Your task to perform on an android device: Show me recent news Image 0: 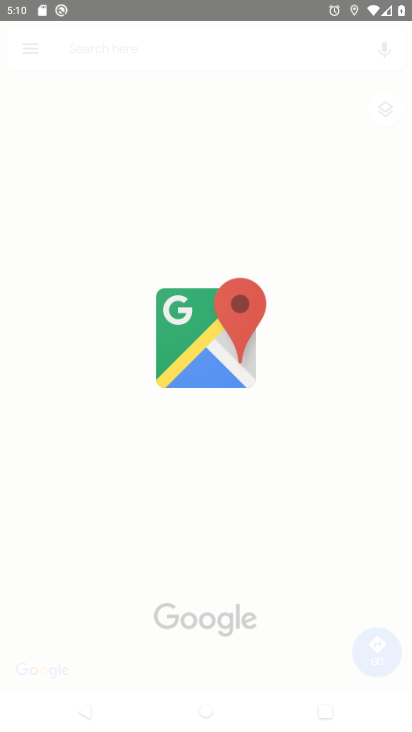
Step 0: click (390, 588)
Your task to perform on an android device: Show me recent news Image 1: 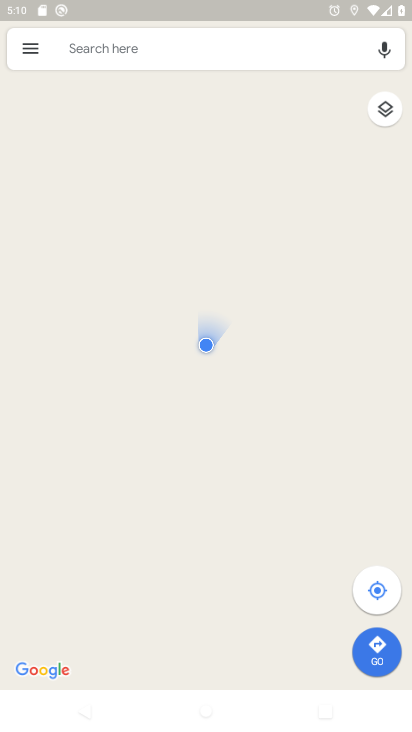
Step 1: press back button
Your task to perform on an android device: Show me recent news Image 2: 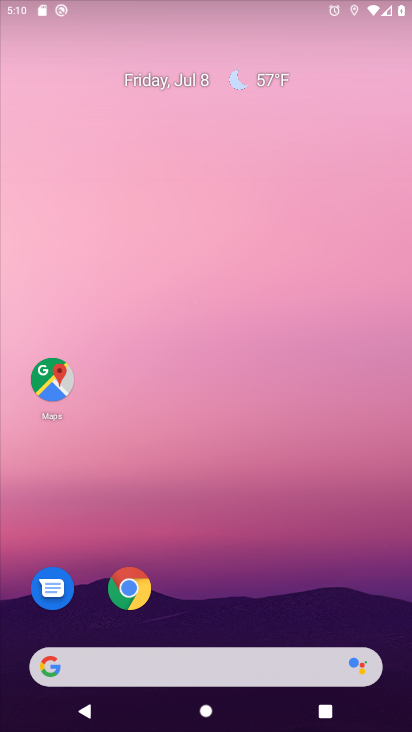
Step 2: press home button
Your task to perform on an android device: Show me recent news Image 3: 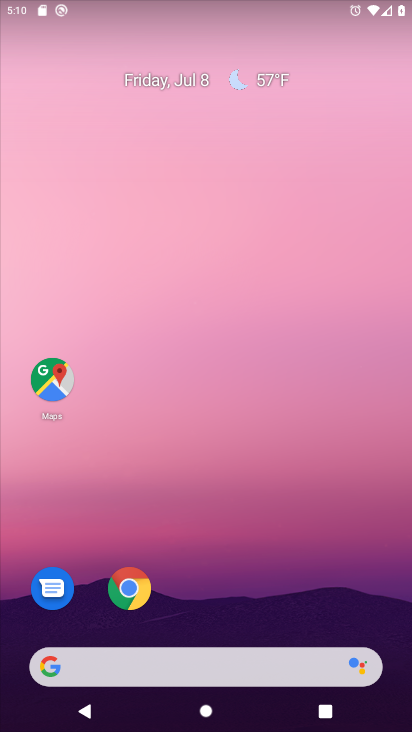
Step 3: click (241, 59)
Your task to perform on an android device: Show me recent news Image 4: 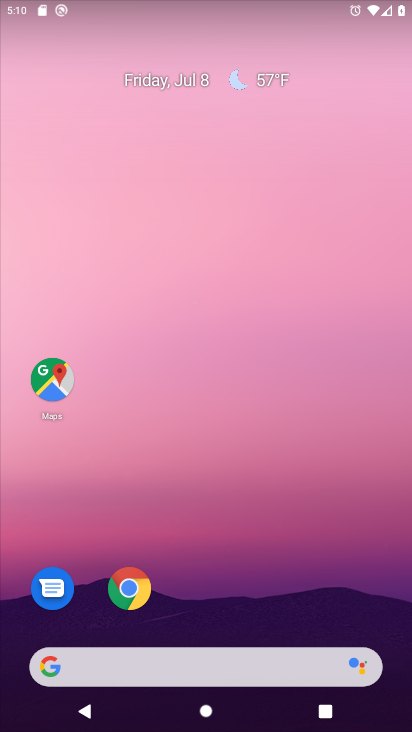
Step 4: drag from (212, 580) to (156, 217)
Your task to perform on an android device: Show me recent news Image 5: 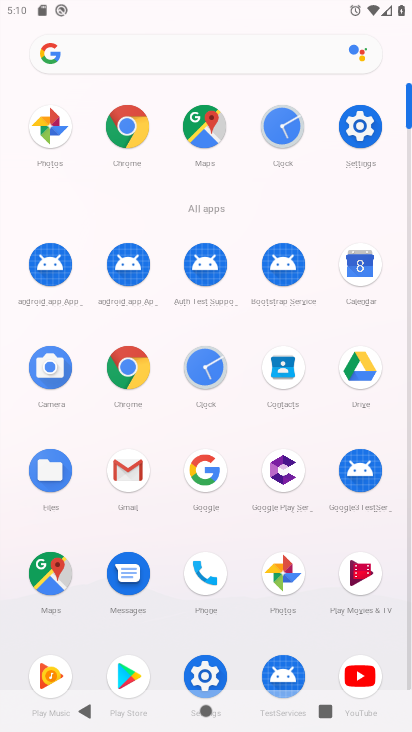
Step 5: click (109, 110)
Your task to perform on an android device: Show me recent news Image 6: 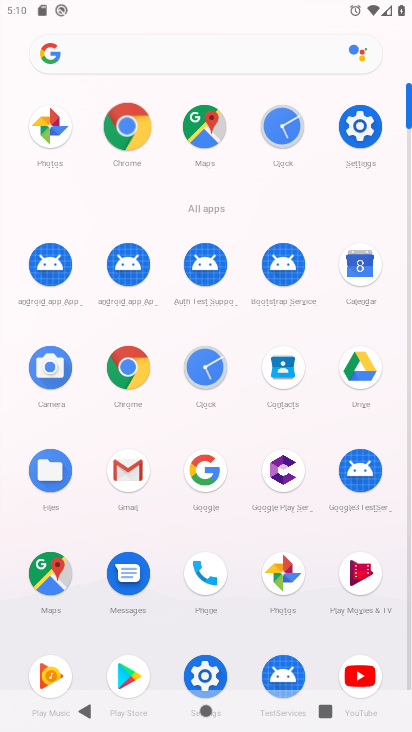
Step 6: click (112, 115)
Your task to perform on an android device: Show me recent news Image 7: 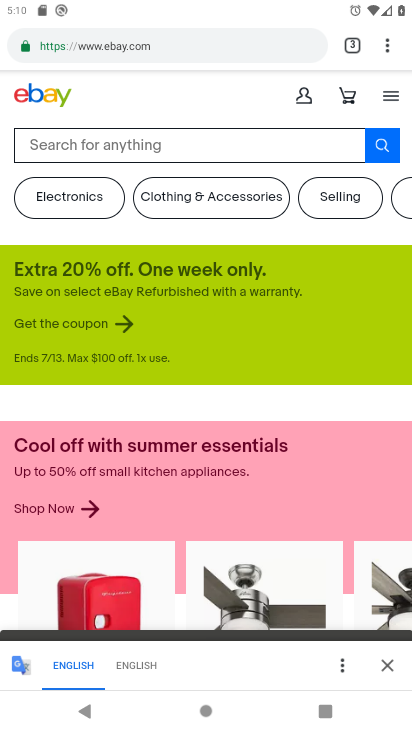
Step 7: click (385, 50)
Your task to perform on an android device: Show me recent news Image 8: 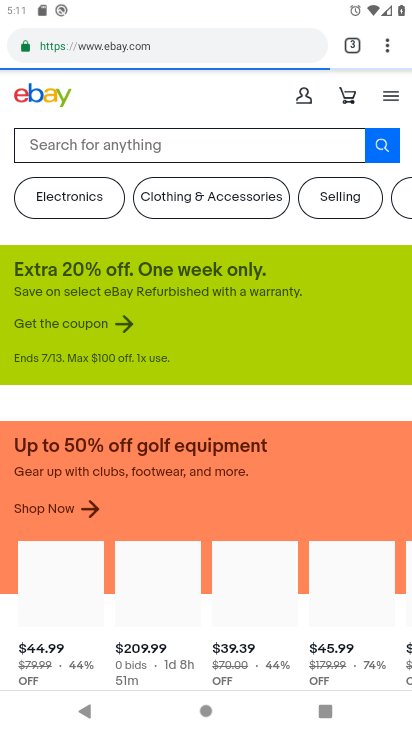
Step 8: click (390, 38)
Your task to perform on an android device: Show me recent news Image 9: 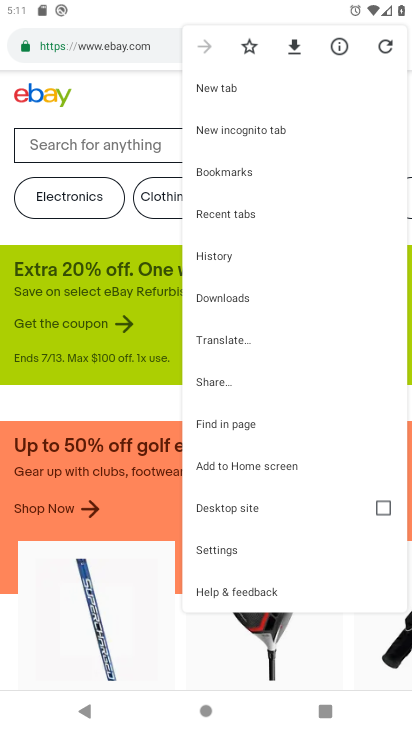
Step 9: click (225, 91)
Your task to perform on an android device: Show me recent news Image 10: 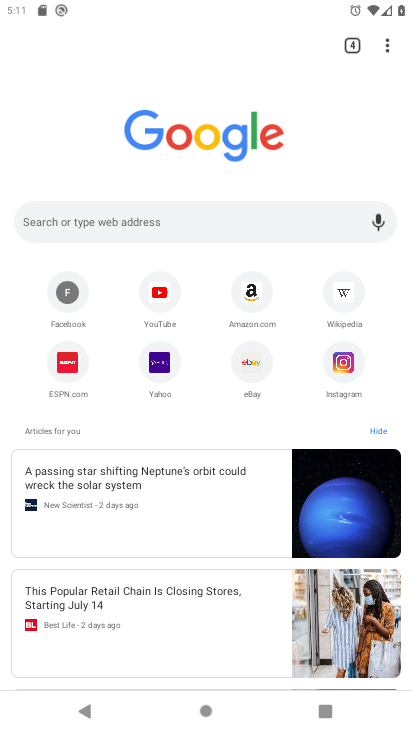
Step 10: drag from (201, 506) to (150, 114)
Your task to perform on an android device: Show me recent news Image 11: 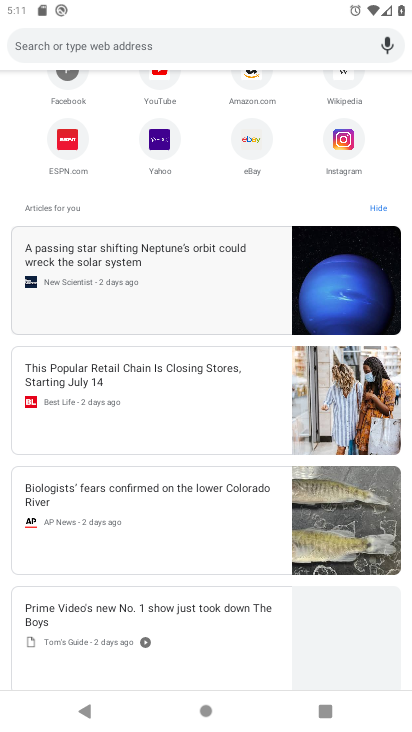
Step 11: click (144, 24)
Your task to perform on an android device: Show me recent news Image 12: 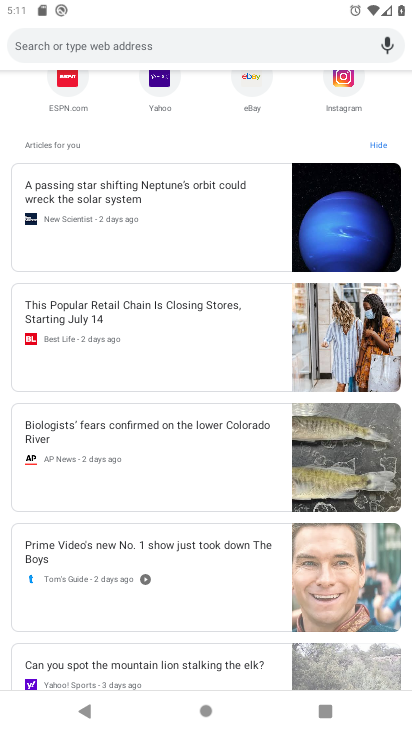
Step 12: task complete